Your task to perform on an android device: turn off improve location accuracy Image 0: 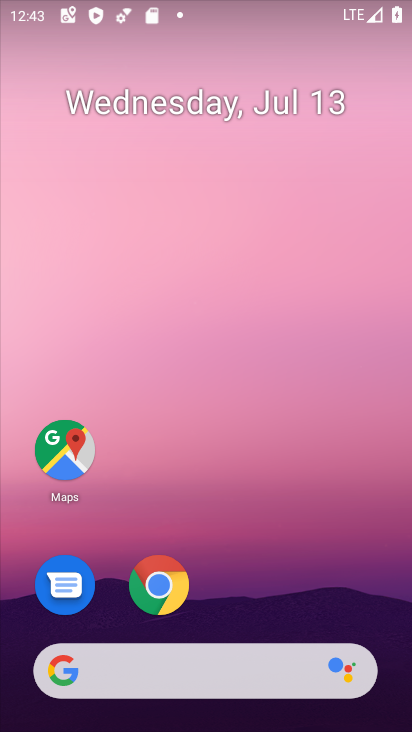
Step 0: drag from (205, 553) to (216, 35)
Your task to perform on an android device: turn off improve location accuracy Image 1: 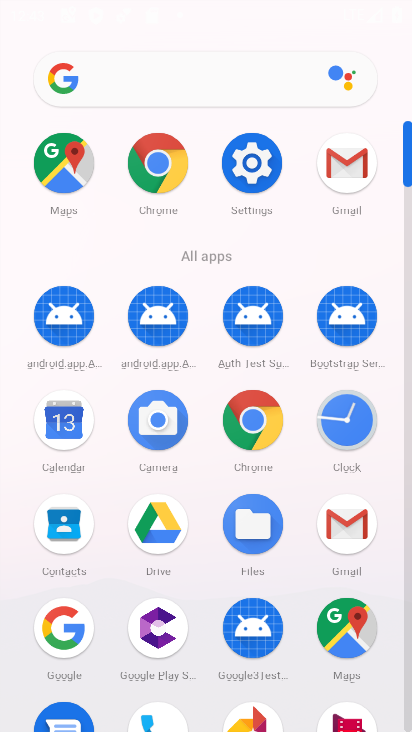
Step 1: click (251, 185)
Your task to perform on an android device: turn off improve location accuracy Image 2: 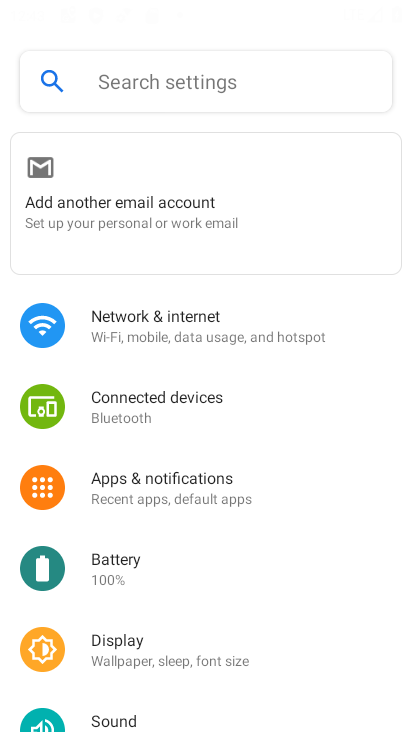
Step 2: drag from (133, 644) to (147, 375)
Your task to perform on an android device: turn off improve location accuracy Image 3: 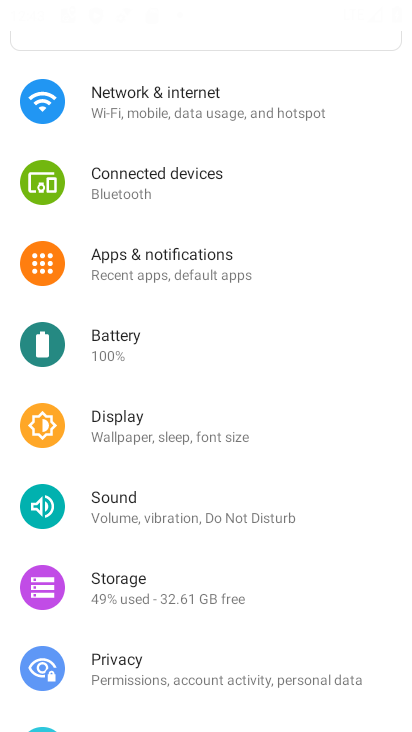
Step 3: drag from (118, 621) to (195, 229)
Your task to perform on an android device: turn off improve location accuracy Image 4: 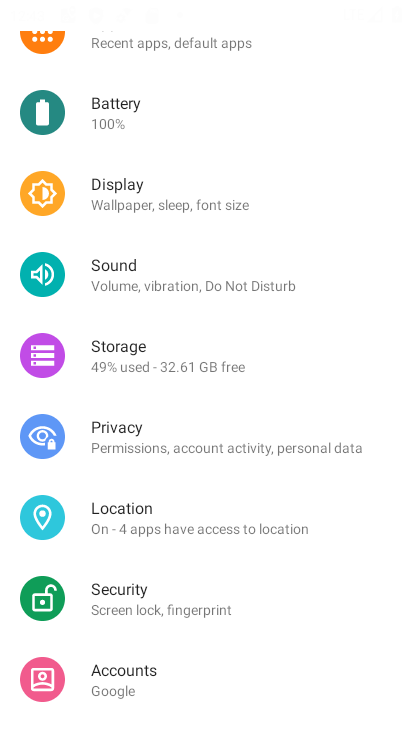
Step 4: click (131, 524)
Your task to perform on an android device: turn off improve location accuracy Image 5: 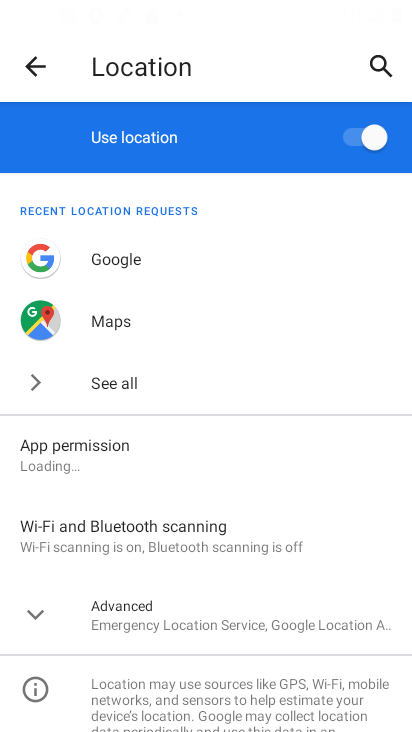
Step 5: click (108, 625)
Your task to perform on an android device: turn off improve location accuracy Image 6: 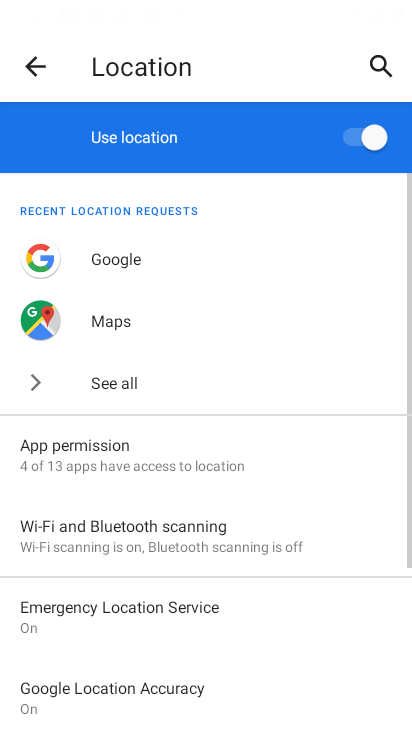
Step 6: click (117, 692)
Your task to perform on an android device: turn off improve location accuracy Image 7: 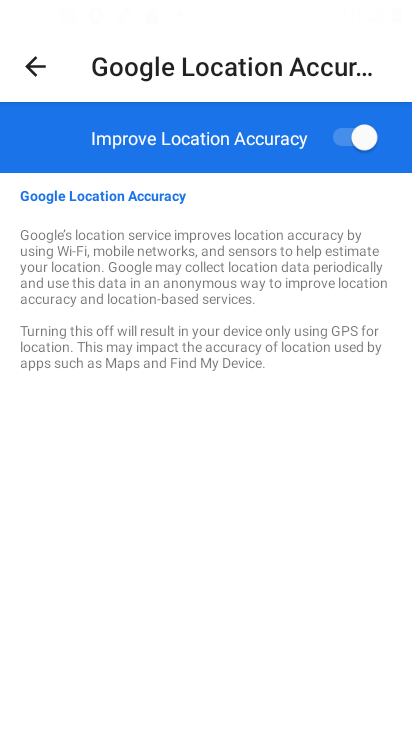
Step 7: click (339, 142)
Your task to perform on an android device: turn off improve location accuracy Image 8: 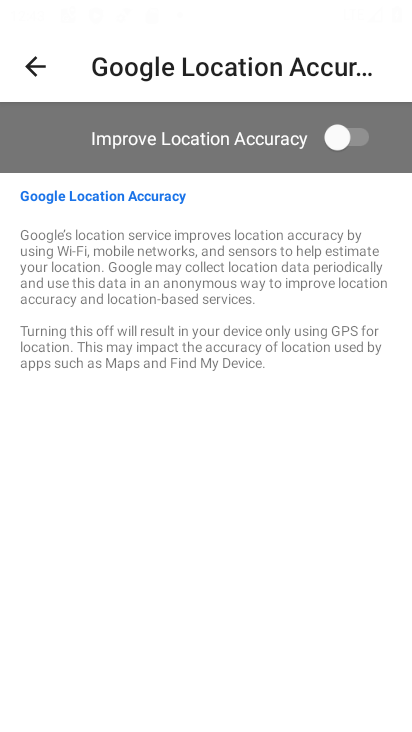
Step 8: task complete